Your task to perform on an android device: Open eBay Image 0: 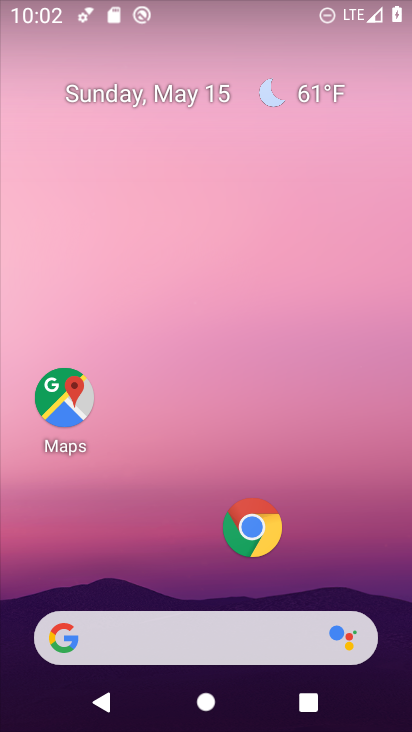
Step 0: click (250, 520)
Your task to perform on an android device: Open eBay Image 1: 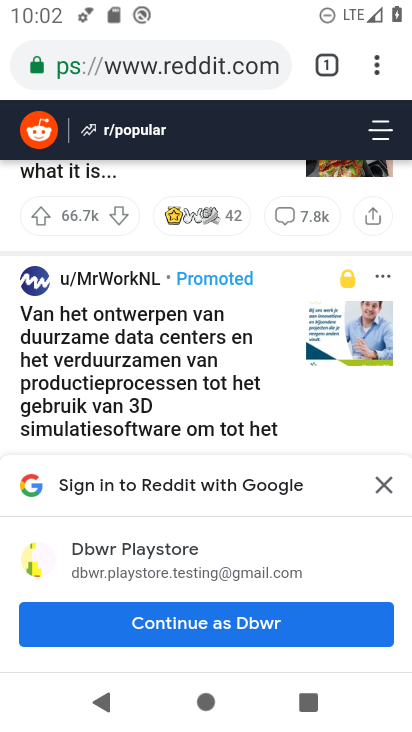
Step 1: click (327, 52)
Your task to perform on an android device: Open eBay Image 2: 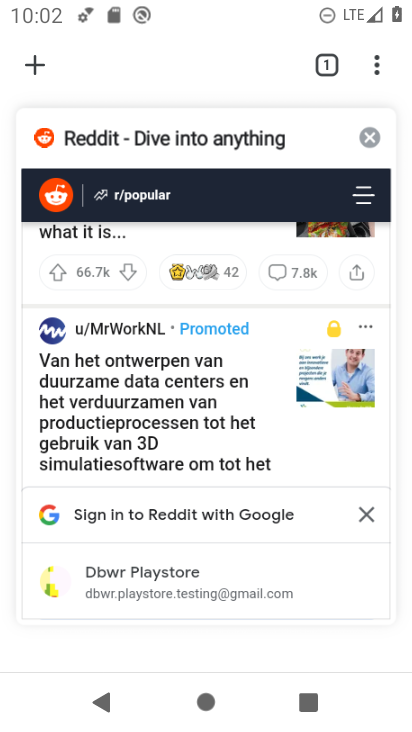
Step 2: click (366, 130)
Your task to perform on an android device: Open eBay Image 3: 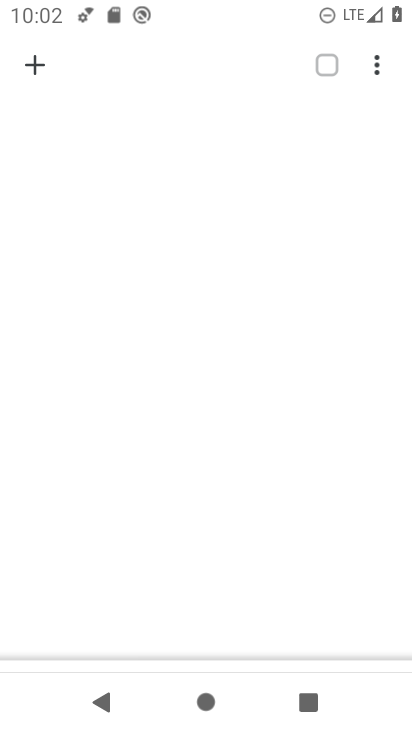
Step 3: click (40, 64)
Your task to perform on an android device: Open eBay Image 4: 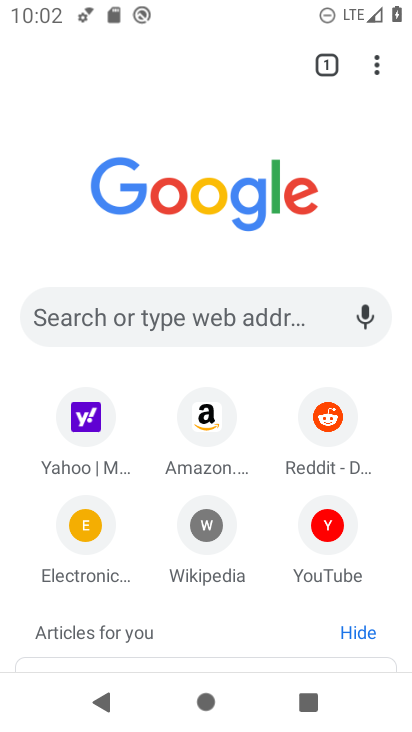
Step 4: click (119, 304)
Your task to perform on an android device: Open eBay Image 5: 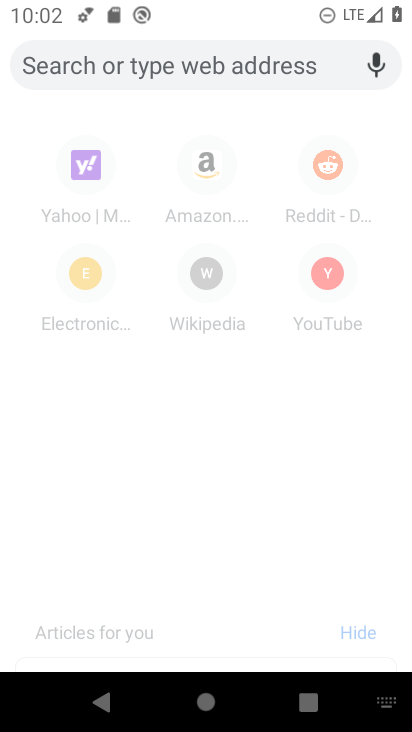
Step 5: type "ebay"
Your task to perform on an android device: Open eBay Image 6: 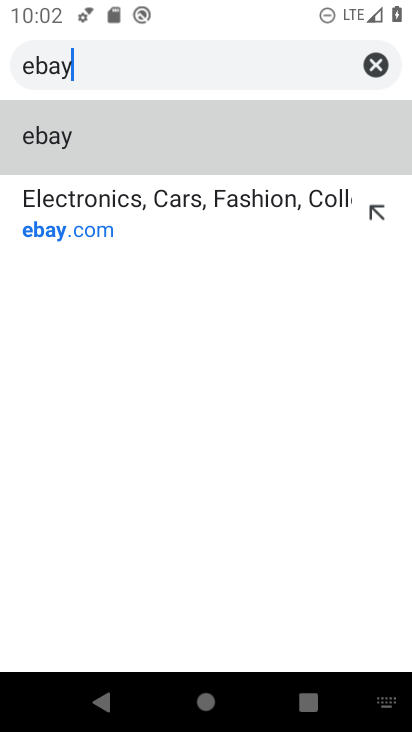
Step 6: click (111, 219)
Your task to perform on an android device: Open eBay Image 7: 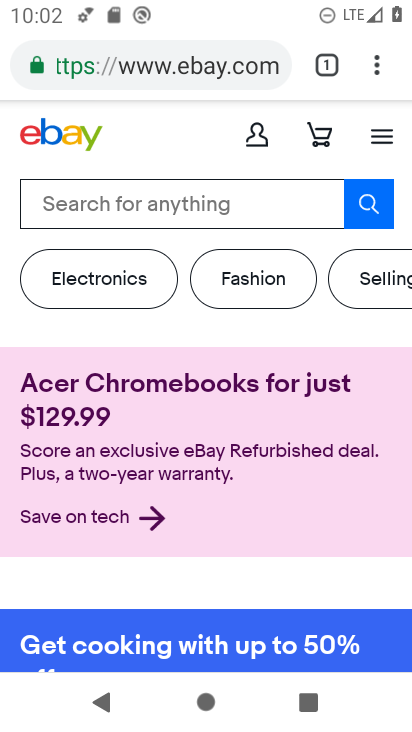
Step 7: drag from (203, 574) to (183, 205)
Your task to perform on an android device: Open eBay Image 8: 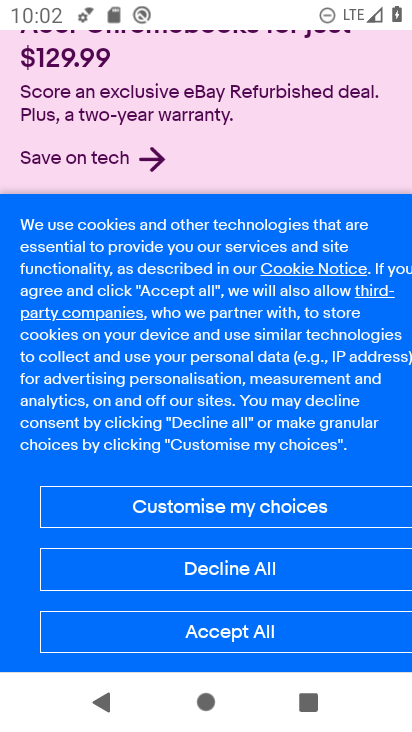
Step 8: click (248, 627)
Your task to perform on an android device: Open eBay Image 9: 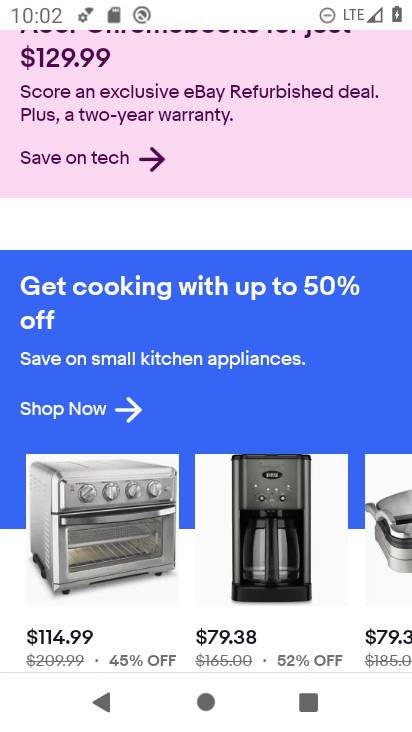
Step 9: task complete